Your task to perform on an android device: toggle notification dots Image 0: 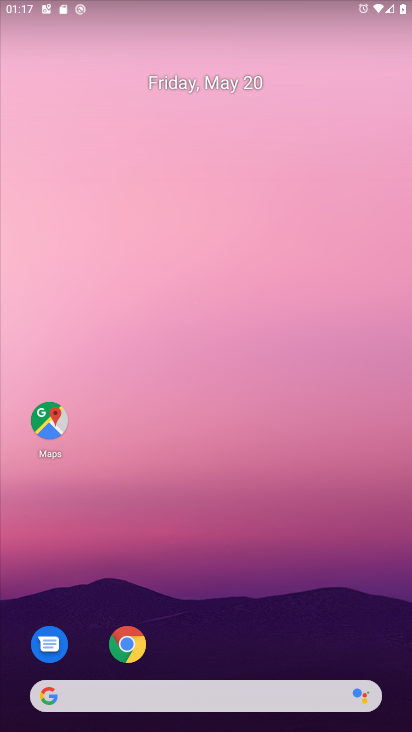
Step 0: drag from (167, 668) to (188, 295)
Your task to perform on an android device: toggle notification dots Image 1: 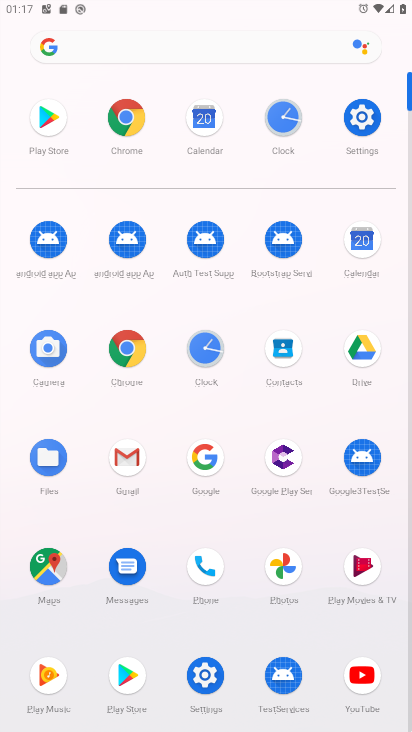
Step 1: click (364, 109)
Your task to perform on an android device: toggle notification dots Image 2: 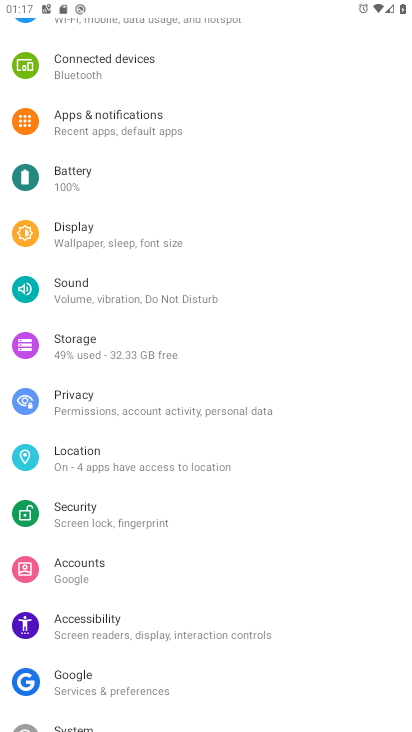
Step 2: click (110, 119)
Your task to perform on an android device: toggle notification dots Image 3: 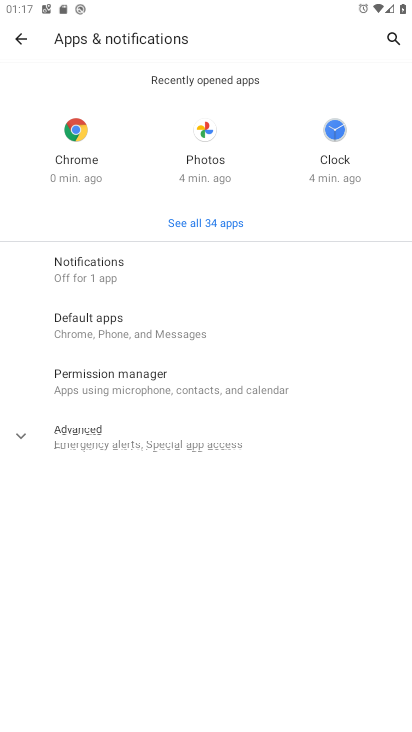
Step 3: click (109, 283)
Your task to perform on an android device: toggle notification dots Image 4: 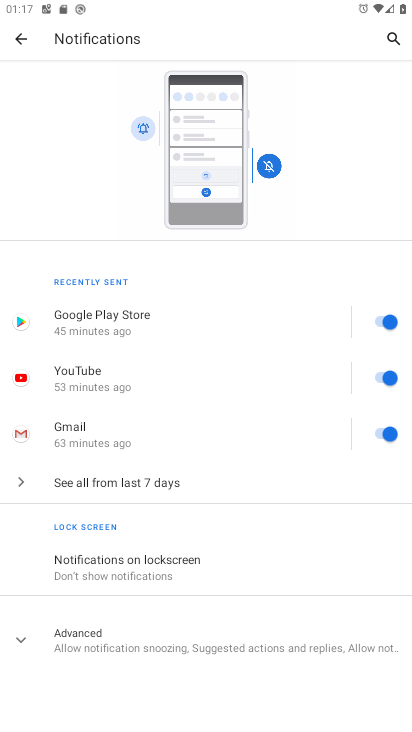
Step 4: click (89, 648)
Your task to perform on an android device: toggle notification dots Image 5: 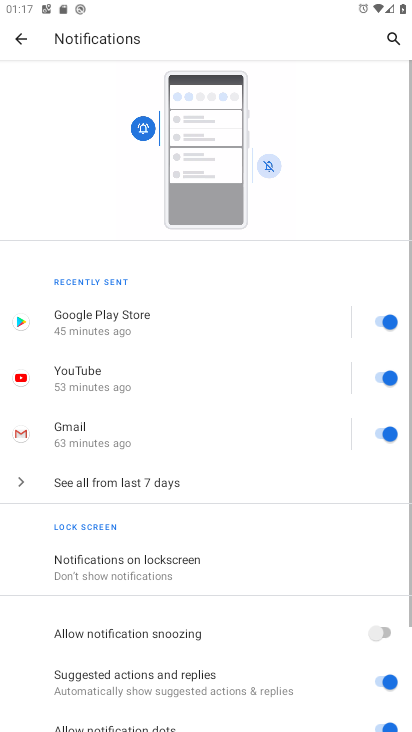
Step 5: drag from (264, 696) to (269, 404)
Your task to perform on an android device: toggle notification dots Image 6: 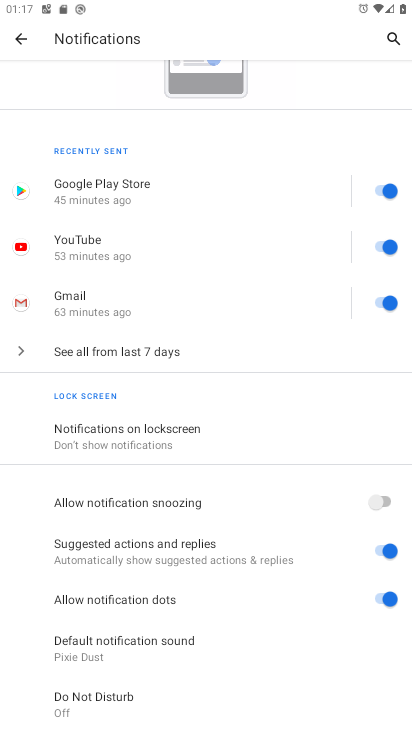
Step 6: click (379, 598)
Your task to perform on an android device: toggle notification dots Image 7: 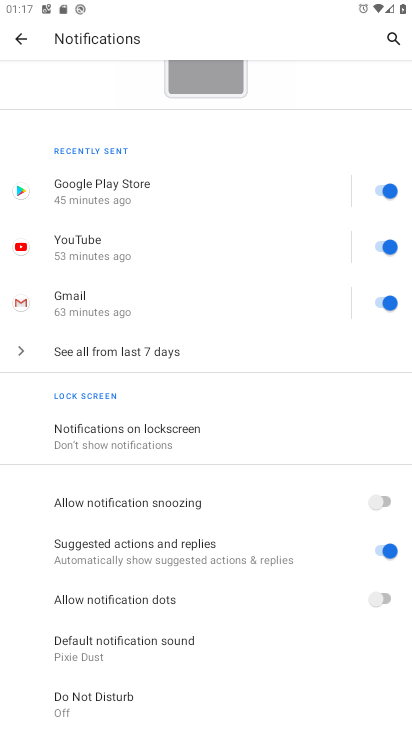
Step 7: task complete